Your task to perform on an android device: set the timer Image 0: 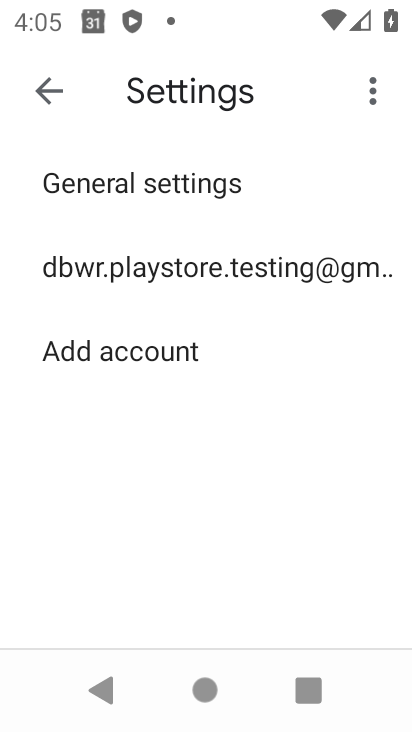
Step 0: press home button
Your task to perform on an android device: set the timer Image 1: 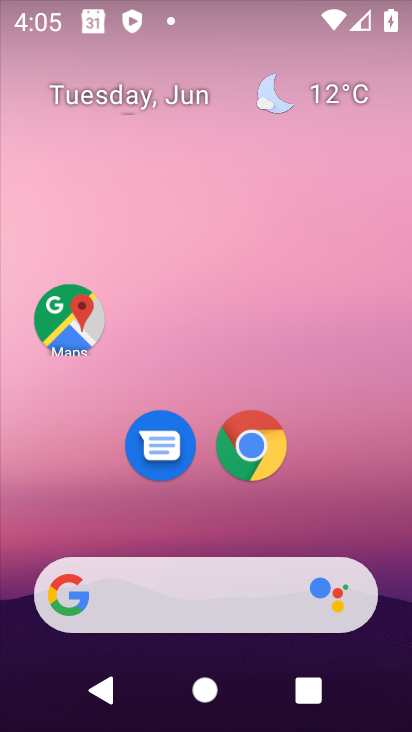
Step 1: drag from (365, 312) to (353, 0)
Your task to perform on an android device: set the timer Image 2: 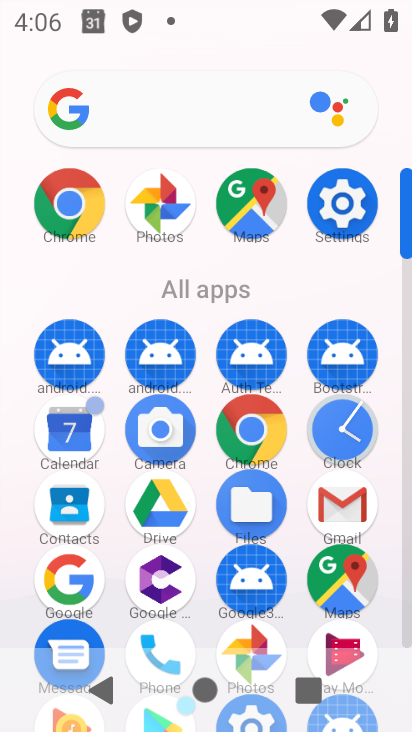
Step 2: click (353, 422)
Your task to perform on an android device: set the timer Image 3: 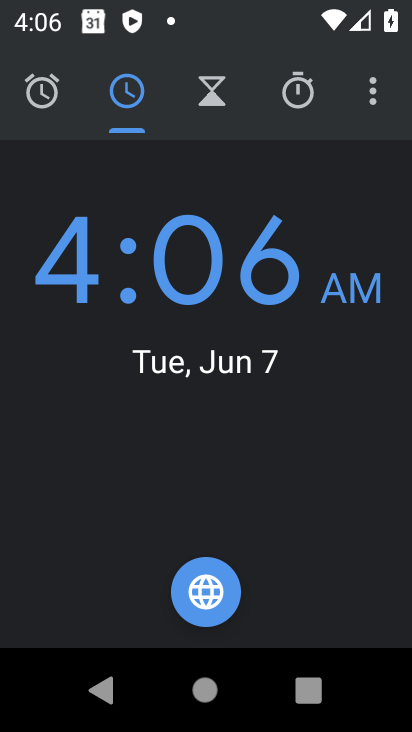
Step 3: click (217, 114)
Your task to perform on an android device: set the timer Image 4: 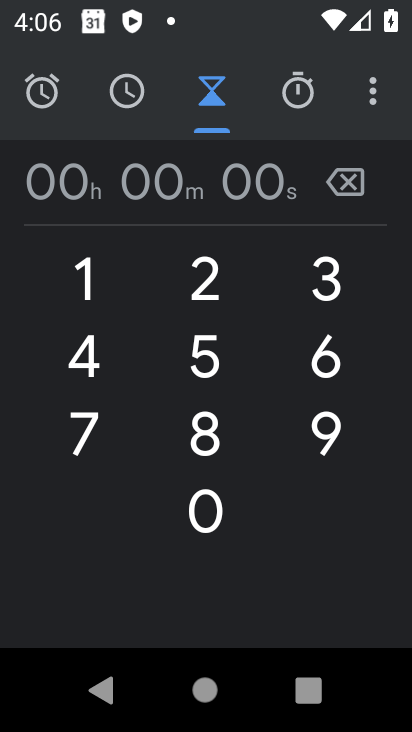
Step 4: click (181, 283)
Your task to perform on an android device: set the timer Image 5: 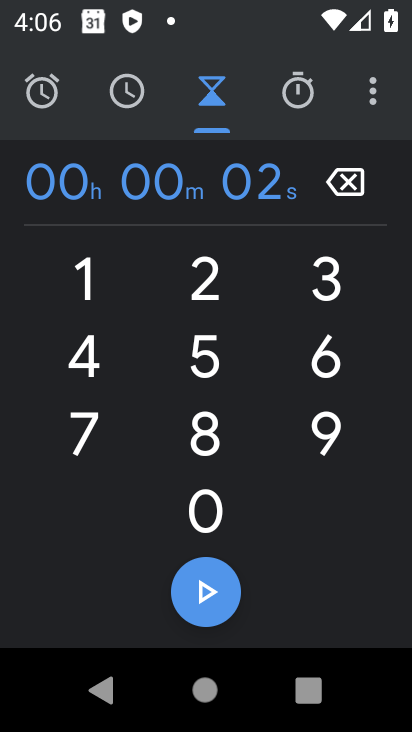
Step 5: click (199, 363)
Your task to perform on an android device: set the timer Image 6: 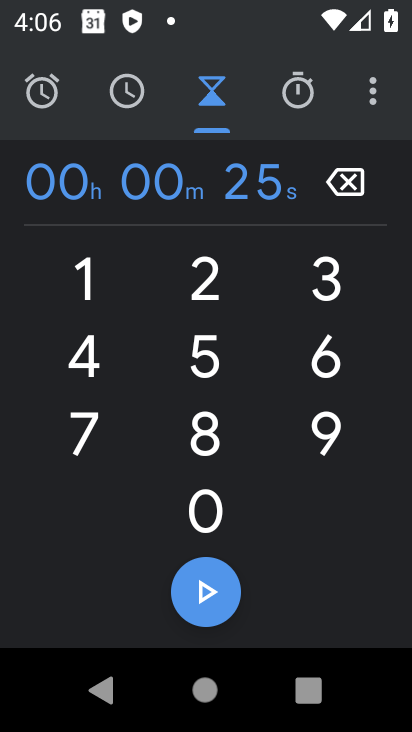
Step 6: click (222, 439)
Your task to perform on an android device: set the timer Image 7: 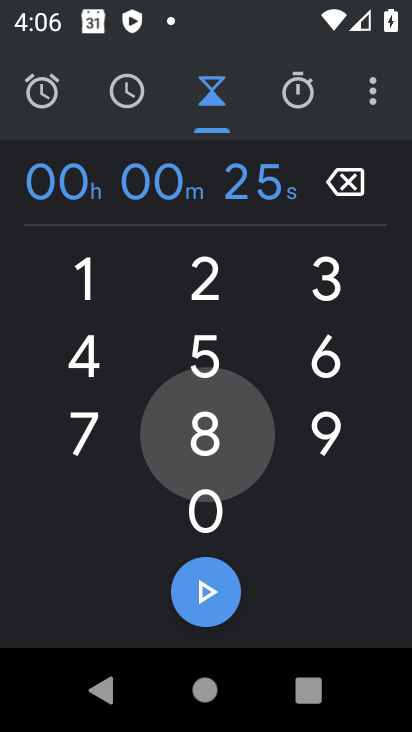
Step 7: click (214, 423)
Your task to perform on an android device: set the timer Image 8: 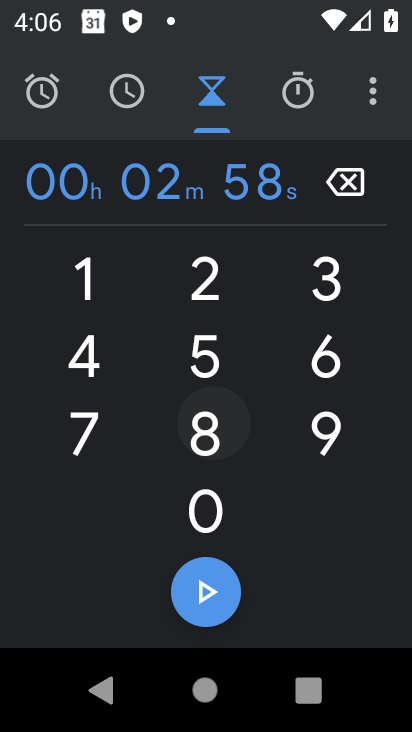
Step 8: click (215, 423)
Your task to perform on an android device: set the timer Image 9: 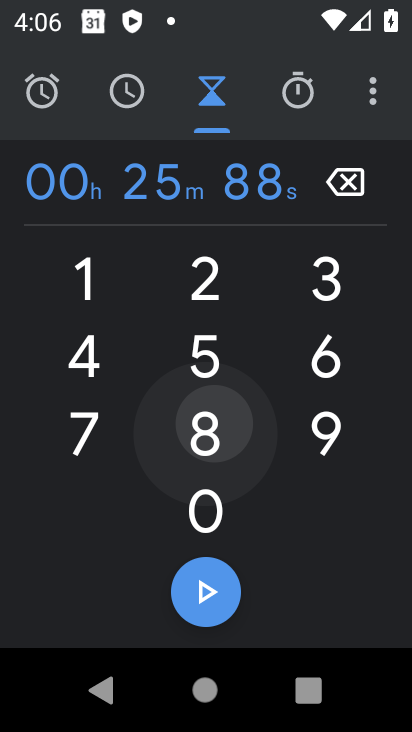
Step 9: click (215, 423)
Your task to perform on an android device: set the timer Image 10: 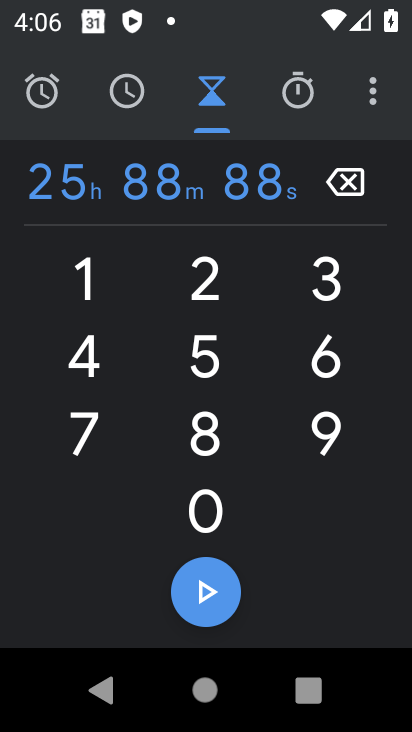
Step 10: task complete